Your task to perform on an android device: Open location settings Image 0: 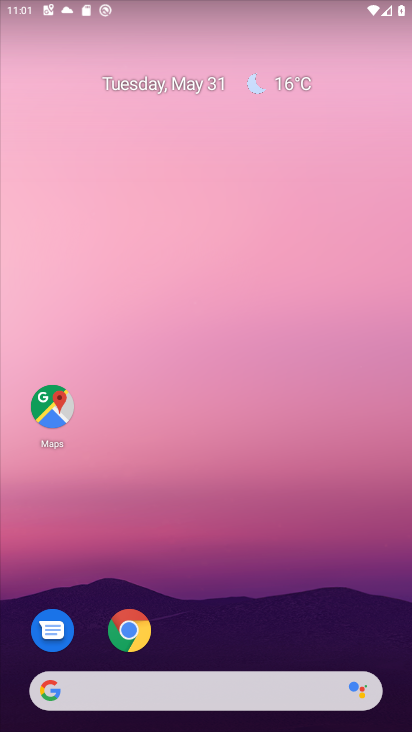
Step 0: drag from (264, 583) to (306, 180)
Your task to perform on an android device: Open location settings Image 1: 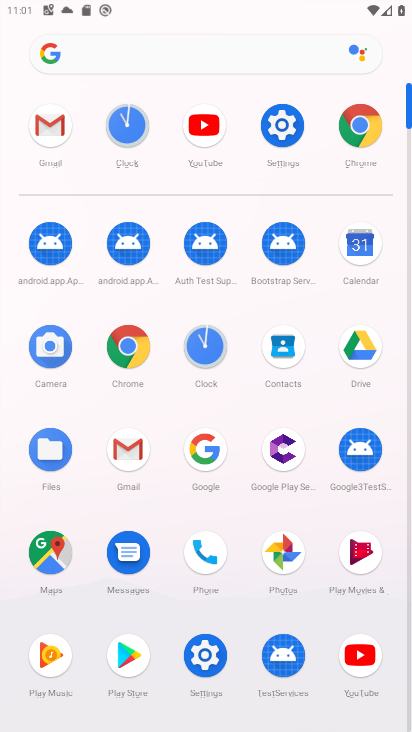
Step 1: click (273, 120)
Your task to perform on an android device: Open location settings Image 2: 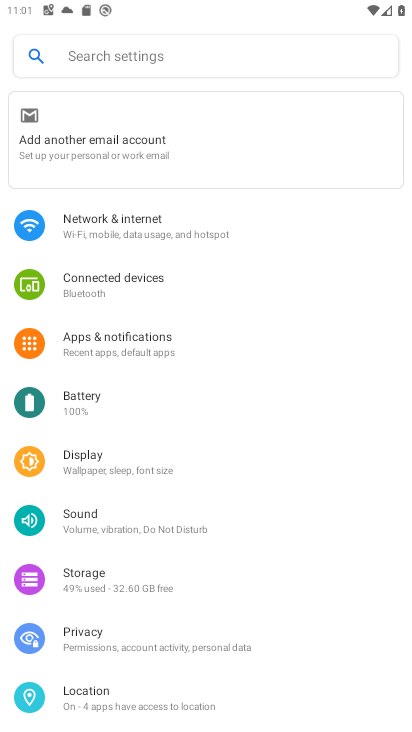
Step 2: drag from (177, 592) to (231, 235)
Your task to perform on an android device: Open location settings Image 3: 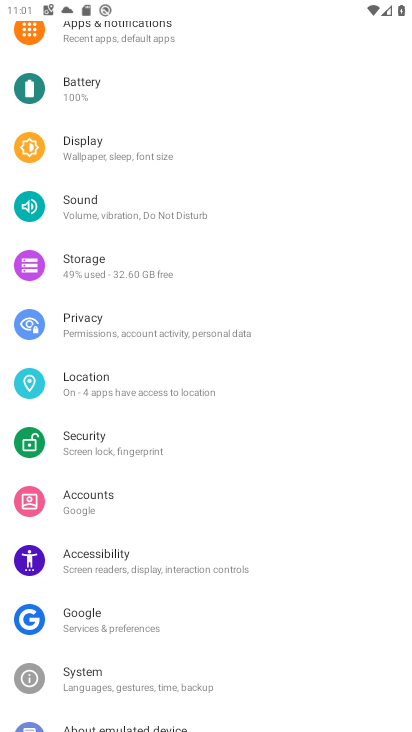
Step 3: click (115, 394)
Your task to perform on an android device: Open location settings Image 4: 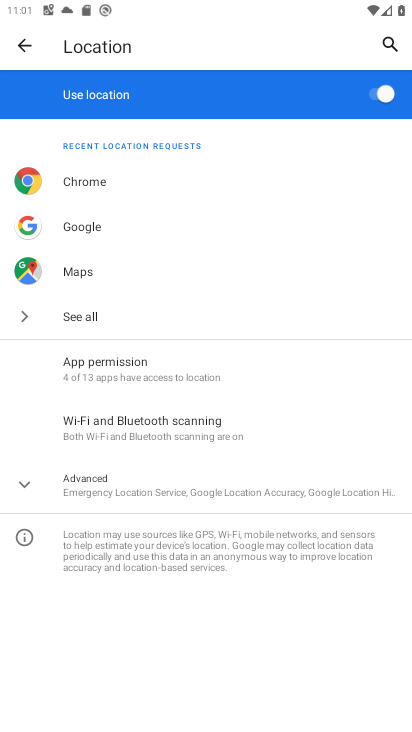
Step 4: task complete